Your task to perform on an android device: Open network settings Image 0: 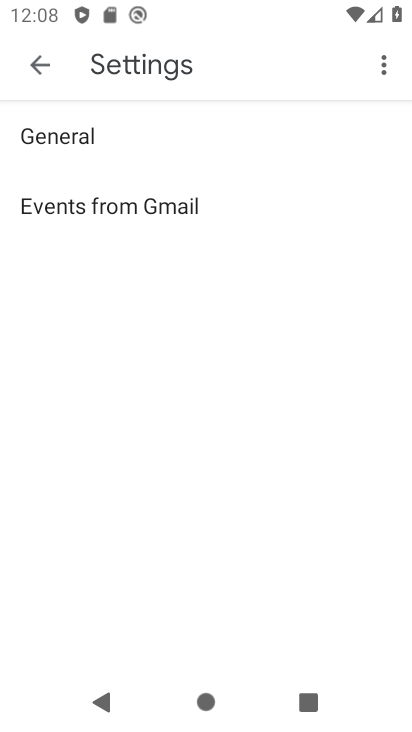
Step 0: click (32, 61)
Your task to perform on an android device: Open network settings Image 1: 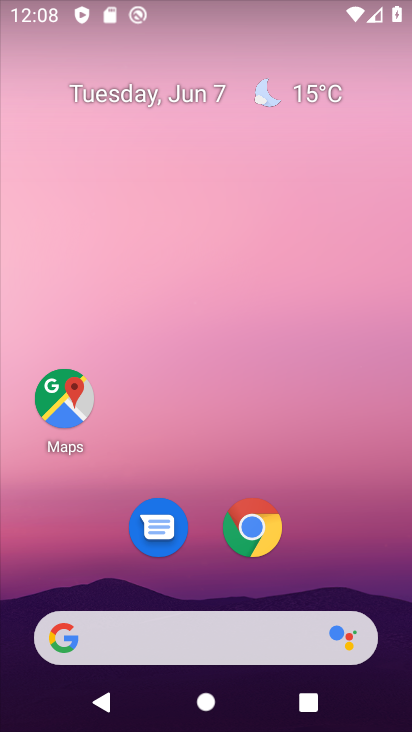
Step 1: drag from (242, 386) to (204, 110)
Your task to perform on an android device: Open network settings Image 2: 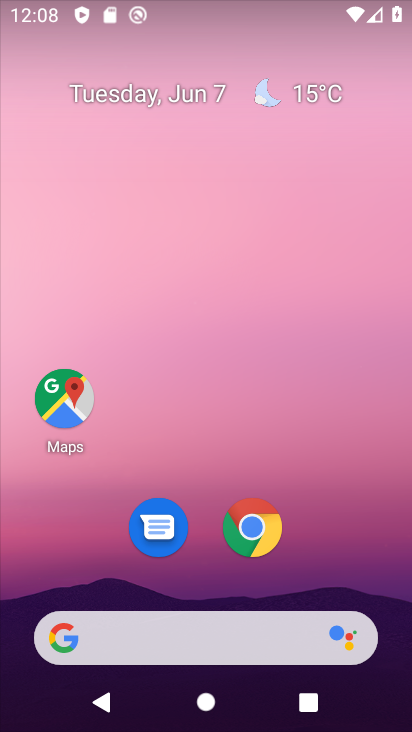
Step 2: drag from (259, 685) to (185, 143)
Your task to perform on an android device: Open network settings Image 3: 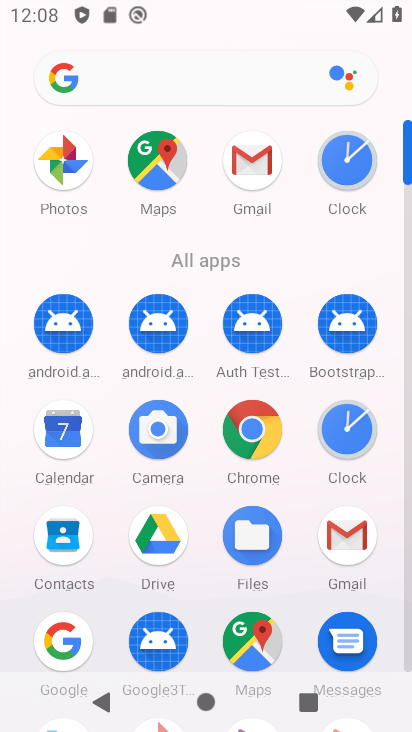
Step 3: drag from (270, 489) to (173, 193)
Your task to perform on an android device: Open network settings Image 4: 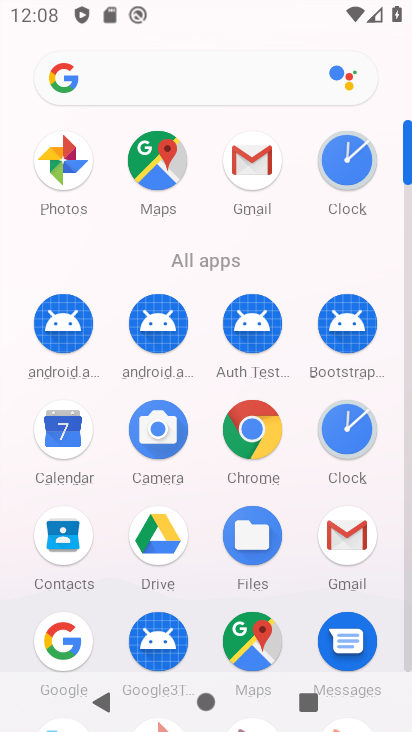
Step 4: drag from (190, 426) to (203, 125)
Your task to perform on an android device: Open network settings Image 5: 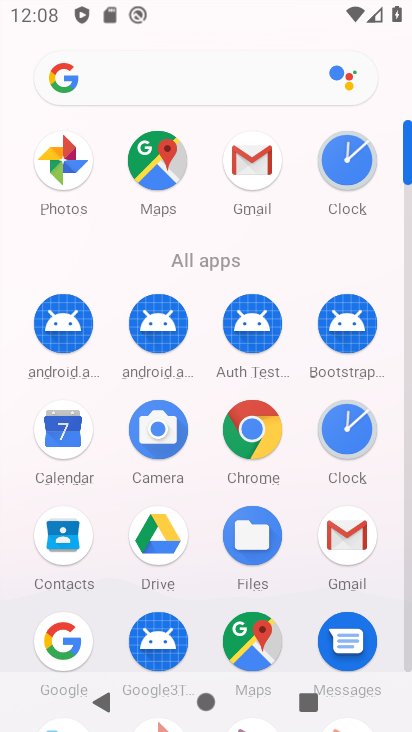
Step 5: drag from (191, 478) to (181, 44)
Your task to perform on an android device: Open network settings Image 6: 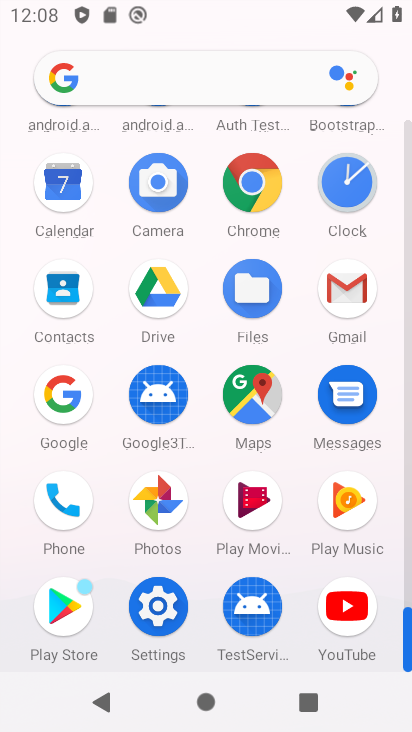
Step 6: drag from (271, 584) to (217, 197)
Your task to perform on an android device: Open network settings Image 7: 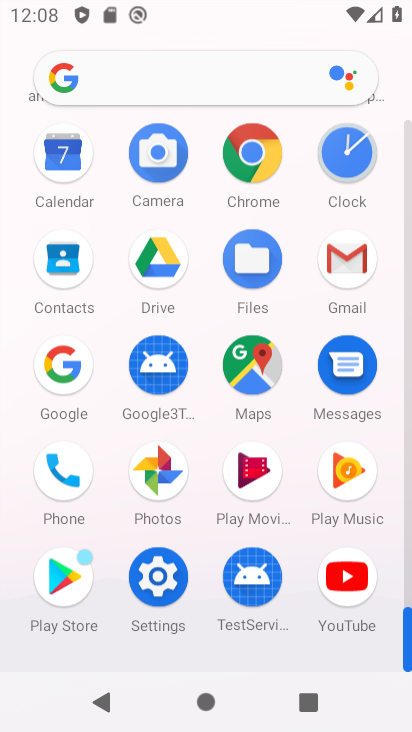
Step 7: drag from (218, 563) to (149, 155)
Your task to perform on an android device: Open network settings Image 8: 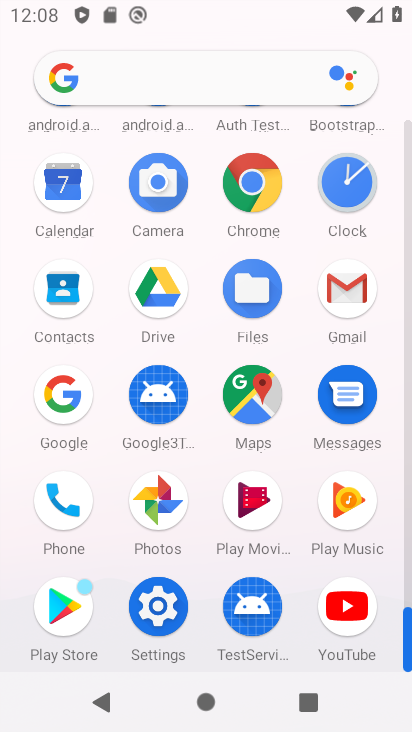
Step 8: click (144, 599)
Your task to perform on an android device: Open network settings Image 9: 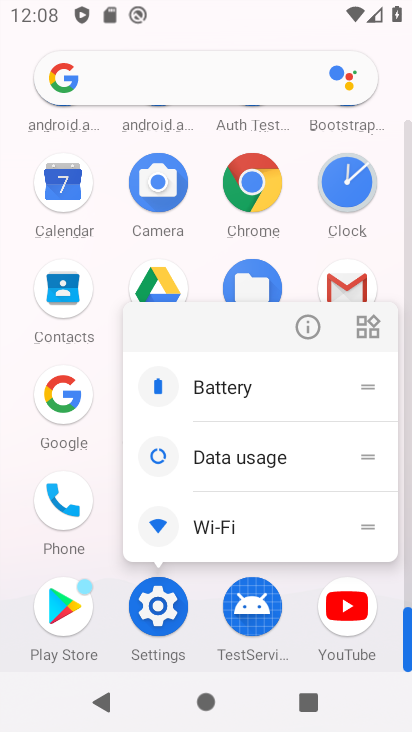
Step 9: click (144, 601)
Your task to perform on an android device: Open network settings Image 10: 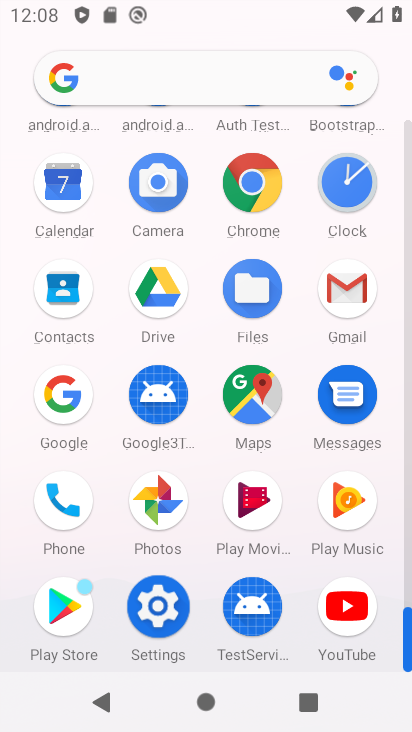
Step 10: click (149, 604)
Your task to perform on an android device: Open network settings Image 11: 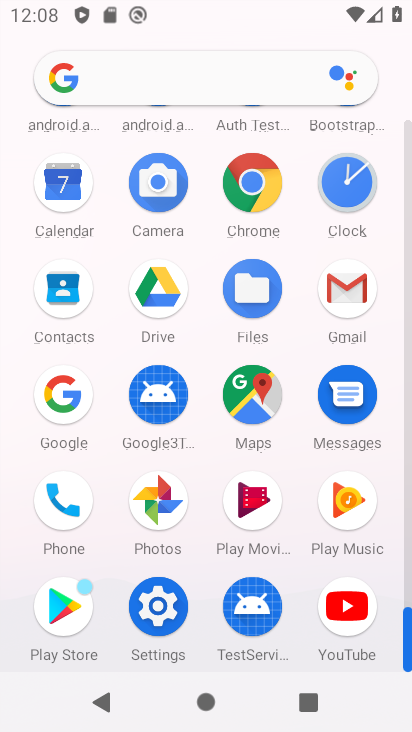
Step 11: click (171, 599)
Your task to perform on an android device: Open network settings Image 12: 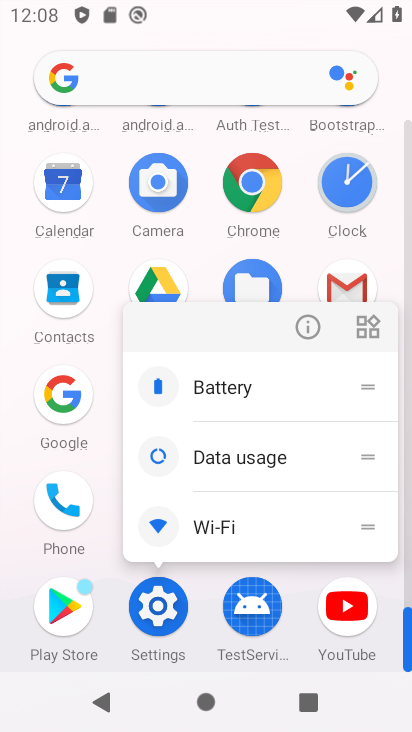
Step 12: click (158, 595)
Your task to perform on an android device: Open network settings Image 13: 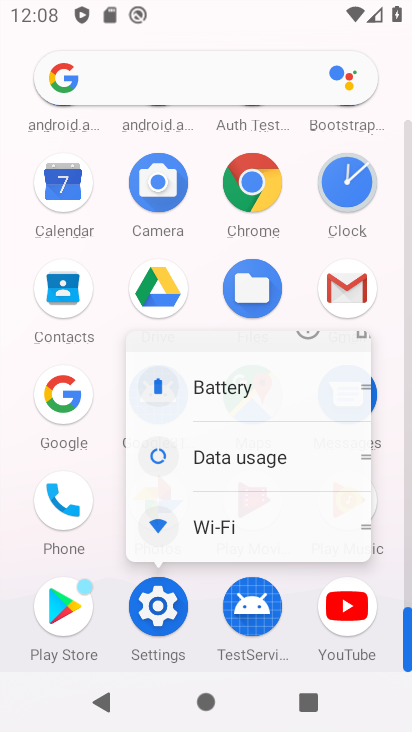
Step 13: click (153, 602)
Your task to perform on an android device: Open network settings Image 14: 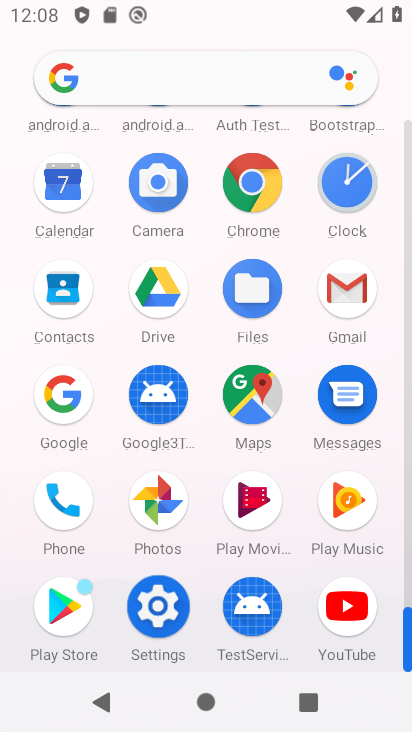
Step 14: click (150, 604)
Your task to perform on an android device: Open network settings Image 15: 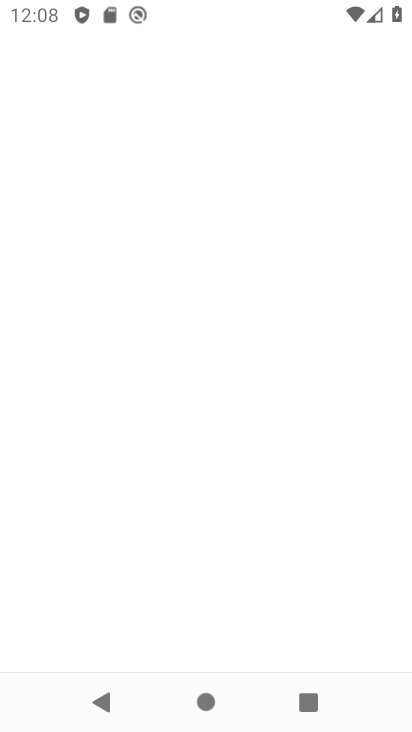
Step 15: click (150, 604)
Your task to perform on an android device: Open network settings Image 16: 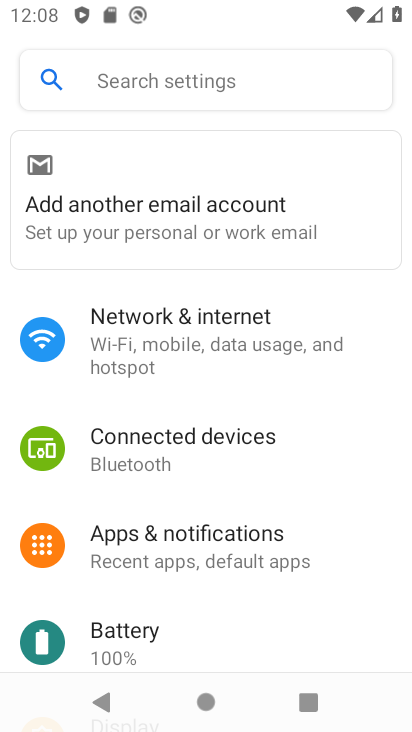
Step 16: click (166, 334)
Your task to perform on an android device: Open network settings Image 17: 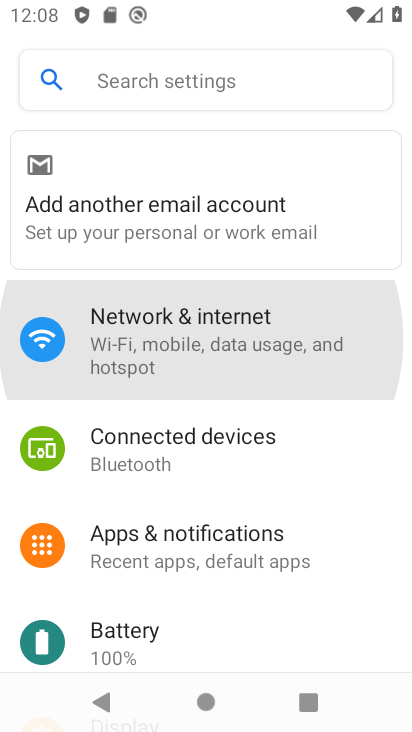
Step 17: click (170, 326)
Your task to perform on an android device: Open network settings Image 18: 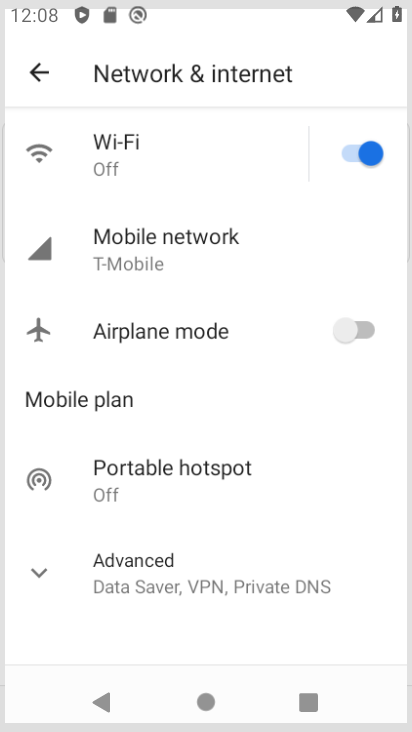
Step 18: click (180, 340)
Your task to perform on an android device: Open network settings Image 19: 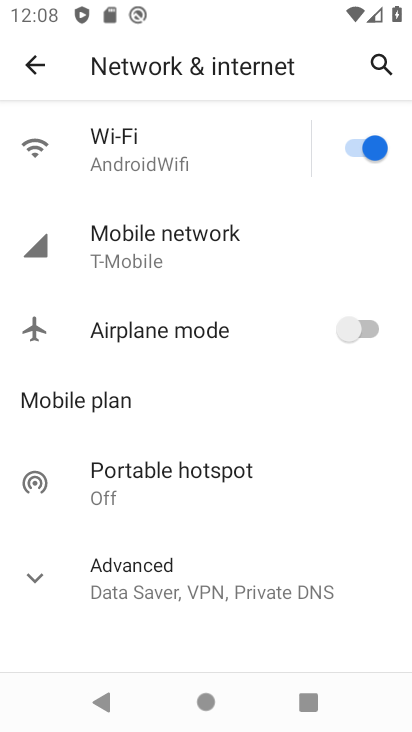
Step 19: click (186, 346)
Your task to perform on an android device: Open network settings Image 20: 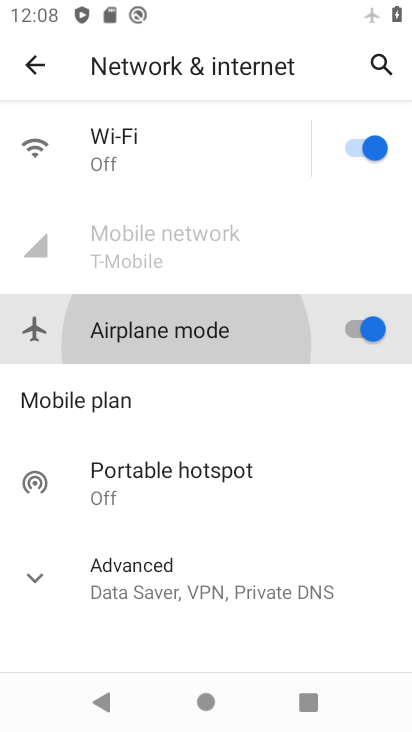
Step 20: click (185, 346)
Your task to perform on an android device: Open network settings Image 21: 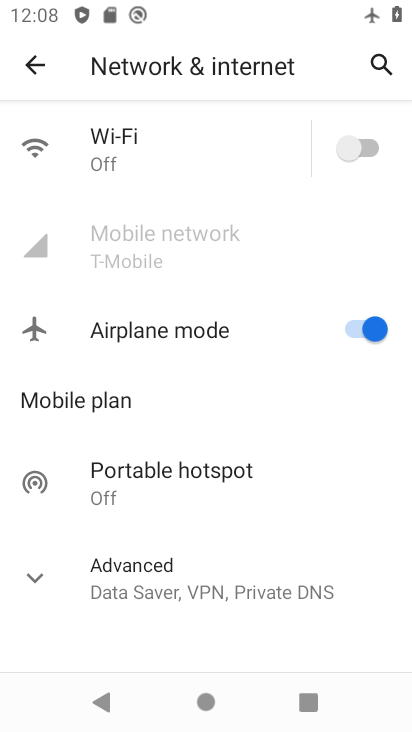
Step 21: click (350, 148)
Your task to perform on an android device: Open network settings Image 22: 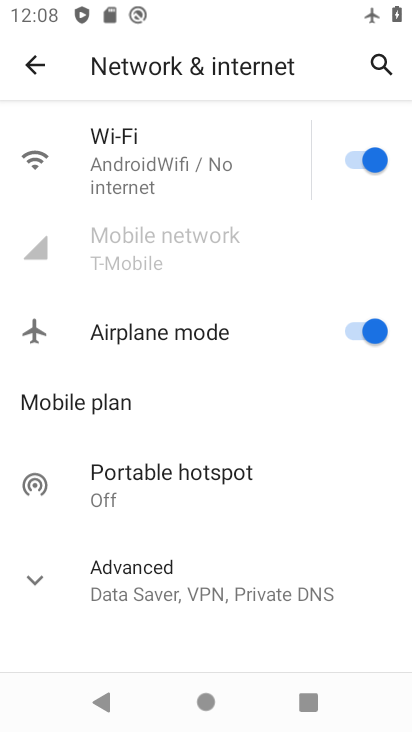
Step 22: task complete